Your task to perform on an android device: change the clock display to analog Image 0: 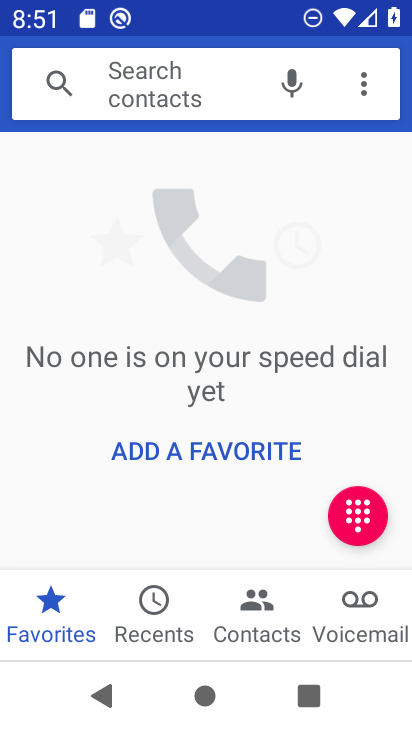
Step 0: press home button
Your task to perform on an android device: change the clock display to analog Image 1: 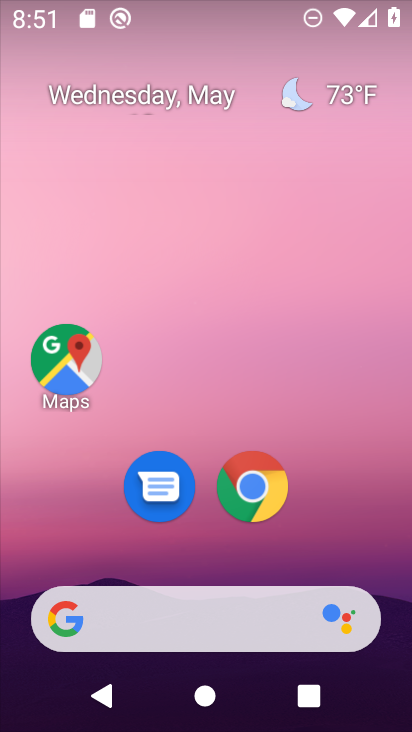
Step 1: drag from (402, 613) to (331, 143)
Your task to perform on an android device: change the clock display to analog Image 2: 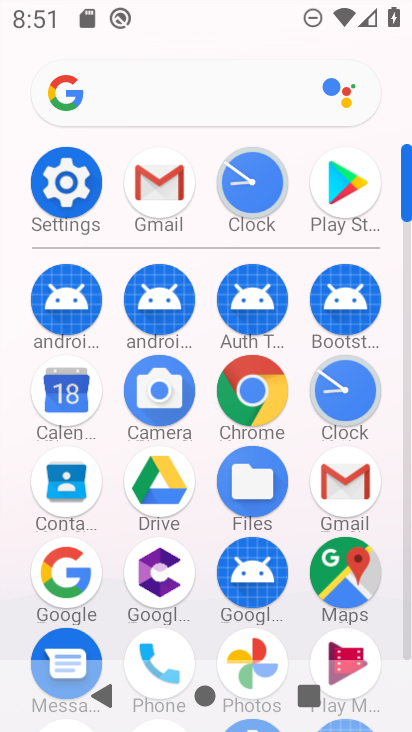
Step 2: click (339, 385)
Your task to perform on an android device: change the clock display to analog Image 3: 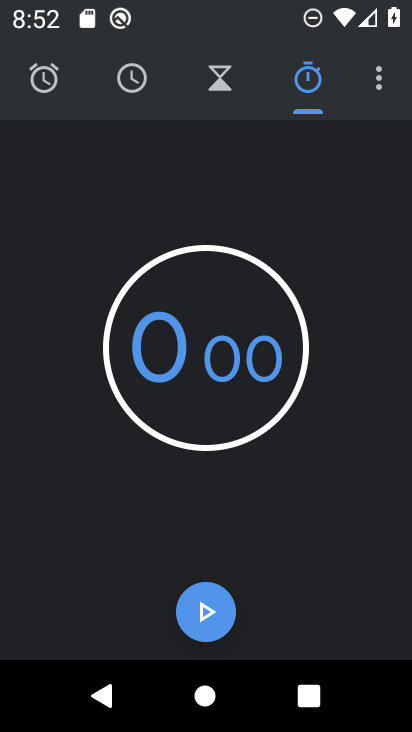
Step 3: click (378, 88)
Your task to perform on an android device: change the clock display to analog Image 4: 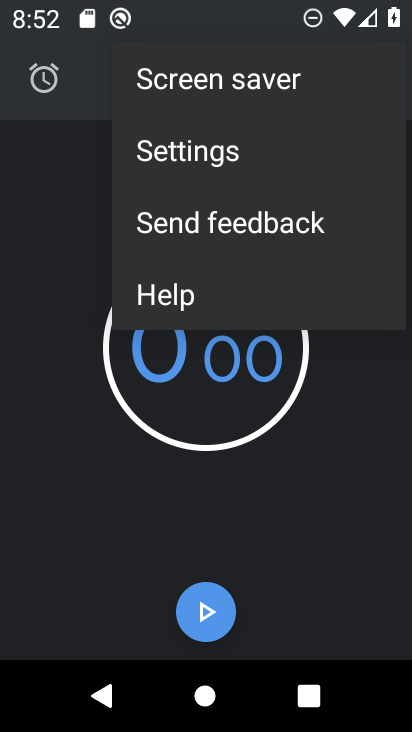
Step 4: click (187, 155)
Your task to perform on an android device: change the clock display to analog Image 5: 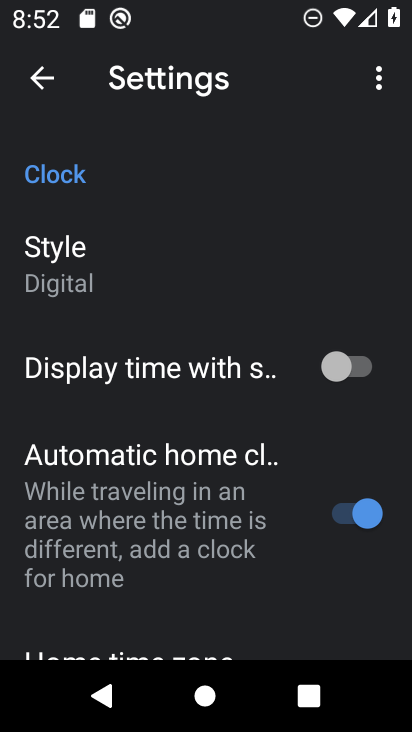
Step 5: click (74, 275)
Your task to perform on an android device: change the clock display to analog Image 6: 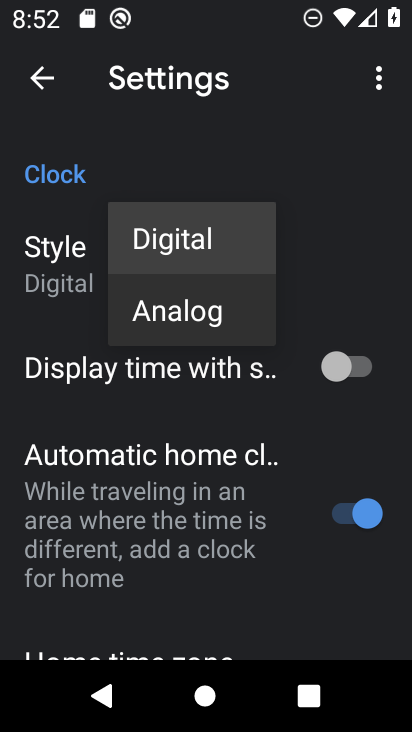
Step 6: click (137, 303)
Your task to perform on an android device: change the clock display to analog Image 7: 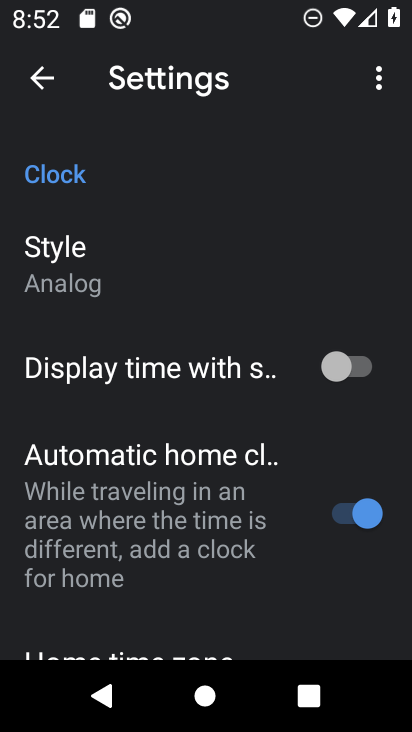
Step 7: task complete